Your task to perform on an android device: Go to Amazon Image 0: 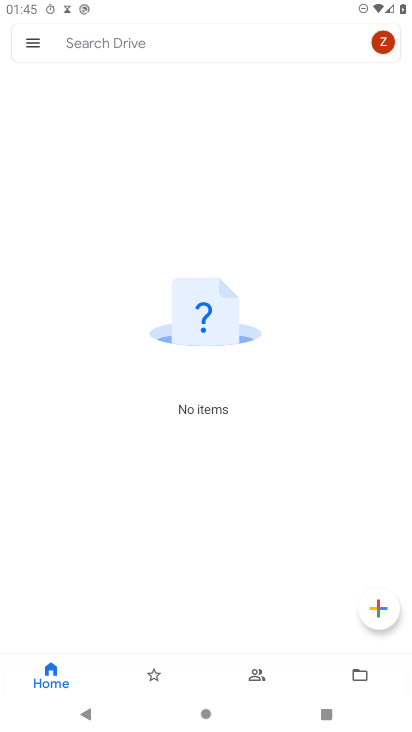
Step 0: press home button
Your task to perform on an android device: Go to Amazon Image 1: 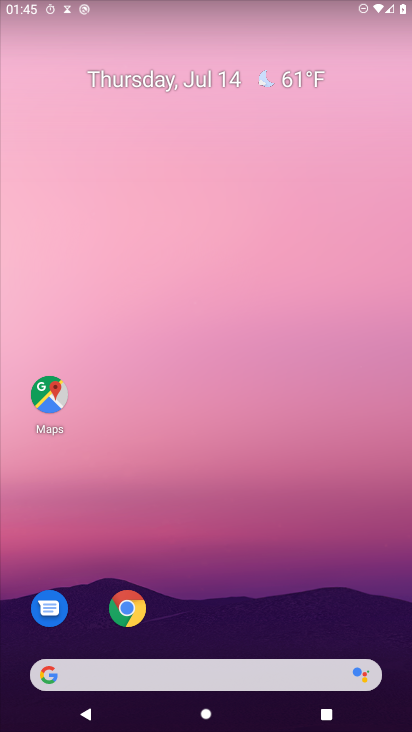
Step 1: click (47, 672)
Your task to perform on an android device: Go to Amazon Image 2: 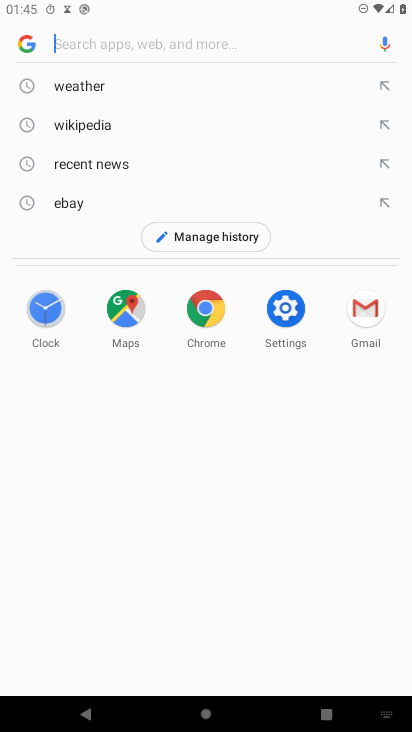
Step 2: type "Amazon"
Your task to perform on an android device: Go to Amazon Image 3: 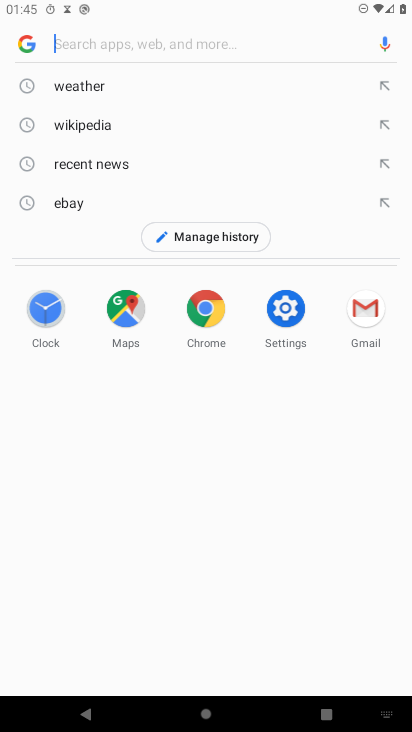
Step 3: click (92, 46)
Your task to perform on an android device: Go to Amazon Image 4: 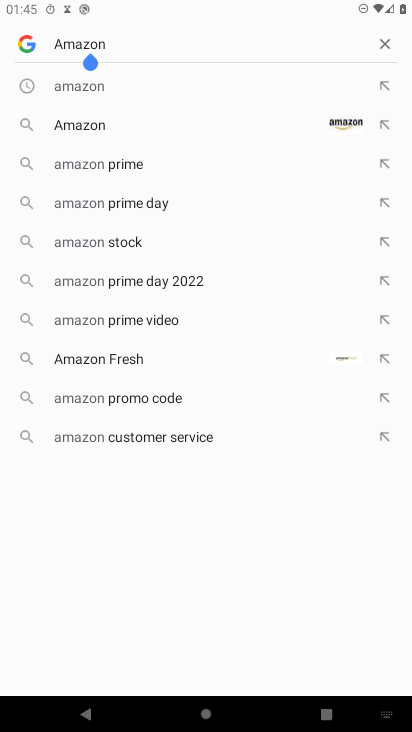
Step 4: click (91, 131)
Your task to perform on an android device: Go to Amazon Image 5: 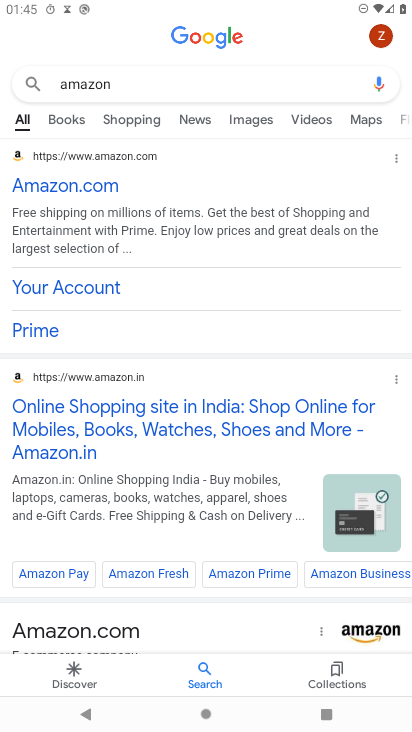
Step 5: click (62, 157)
Your task to perform on an android device: Go to Amazon Image 6: 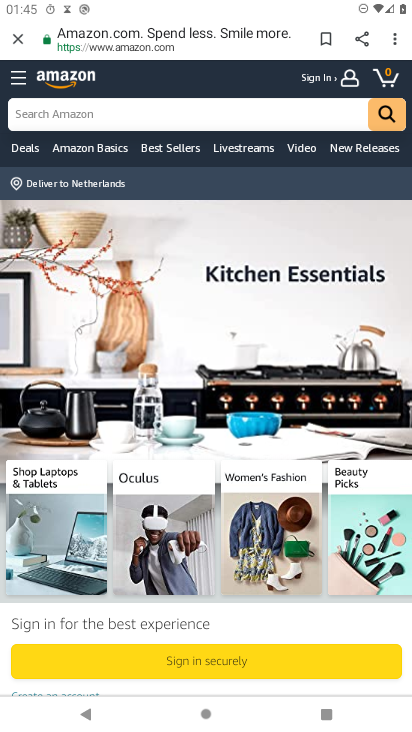
Step 6: task complete